Your task to perform on an android device: change alarm snooze length Image 0: 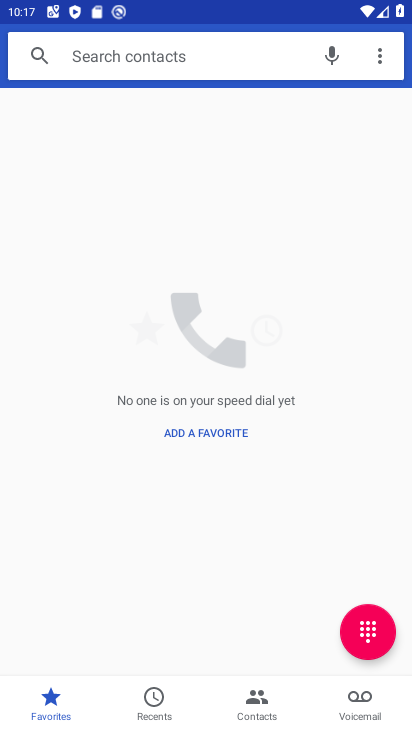
Step 0: press home button
Your task to perform on an android device: change alarm snooze length Image 1: 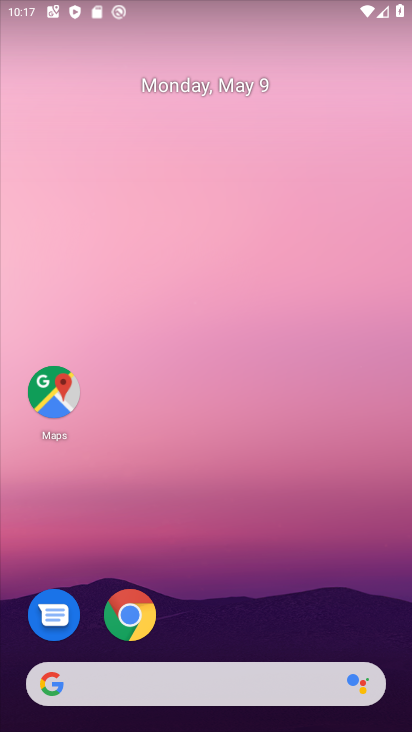
Step 1: drag from (184, 637) to (253, 202)
Your task to perform on an android device: change alarm snooze length Image 2: 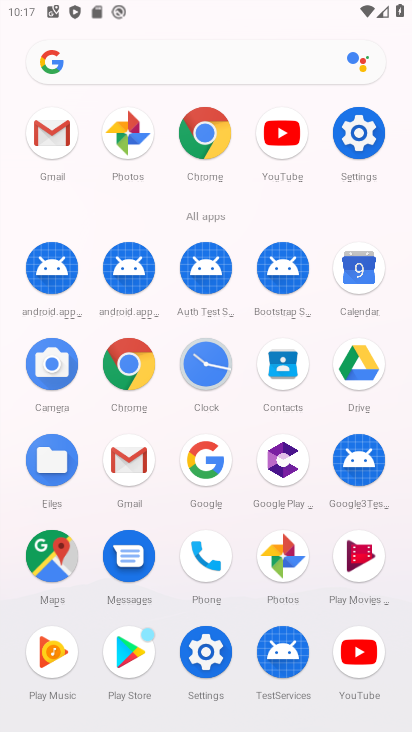
Step 2: click (208, 358)
Your task to perform on an android device: change alarm snooze length Image 3: 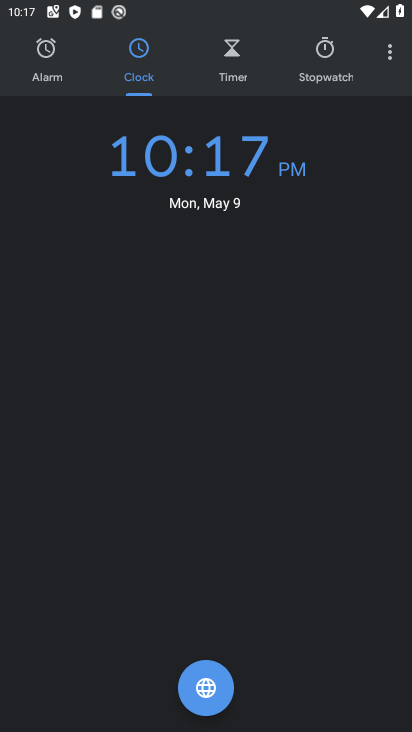
Step 3: click (389, 56)
Your task to perform on an android device: change alarm snooze length Image 4: 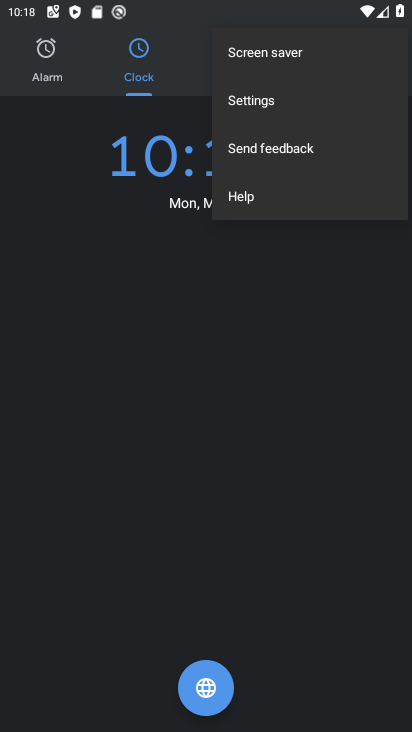
Step 4: click (256, 97)
Your task to perform on an android device: change alarm snooze length Image 5: 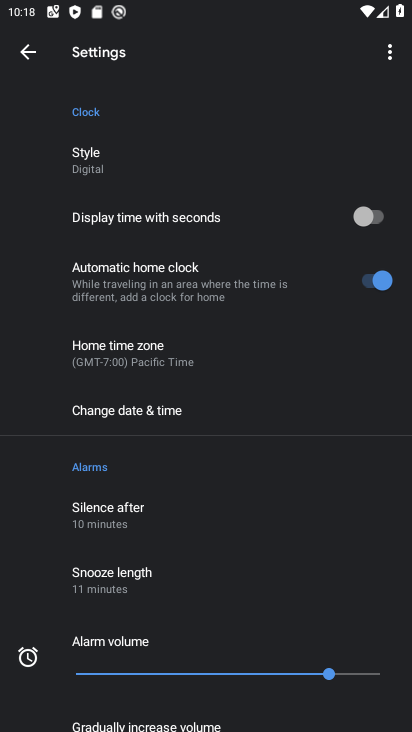
Step 5: click (161, 572)
Your task to perform on an android device: change alarm snooze length Image 6: 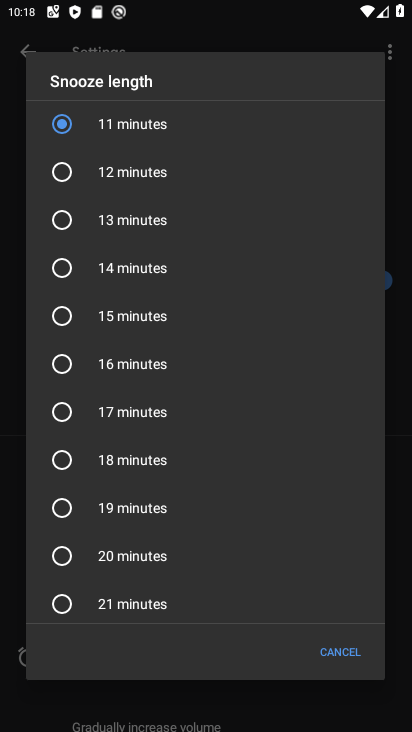
Step 6: click (95, 175)
Your task to perform on an android device: change alarm snooze length Image 7: 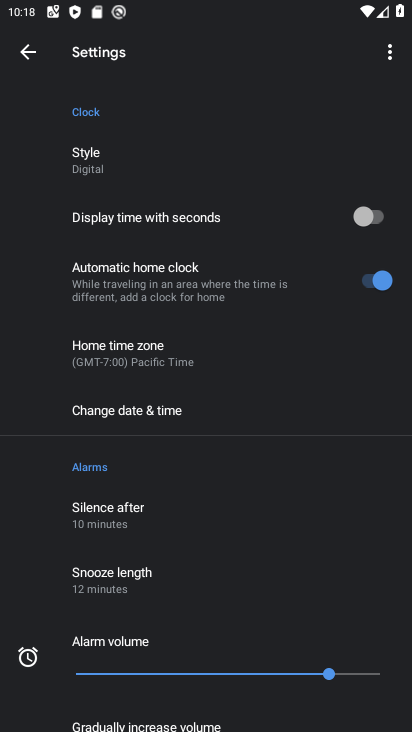
Step 7: task complete